Your task to perform on an android device: Open my contact list Image 0: 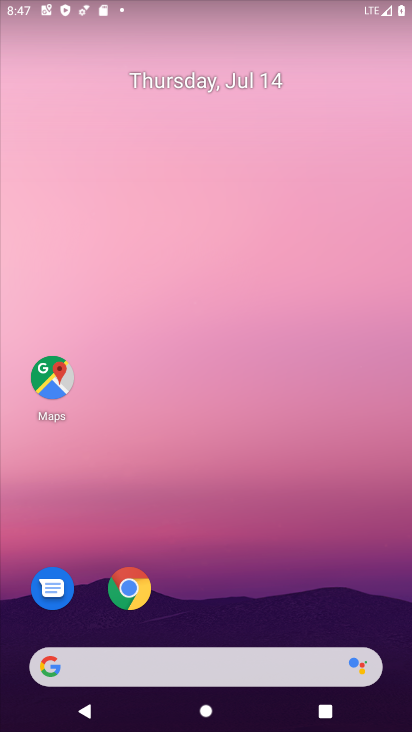
Step 0: drag from (371, 628) to (317, 9)
Your task to perform on an android device: Open my contact list Image 1: 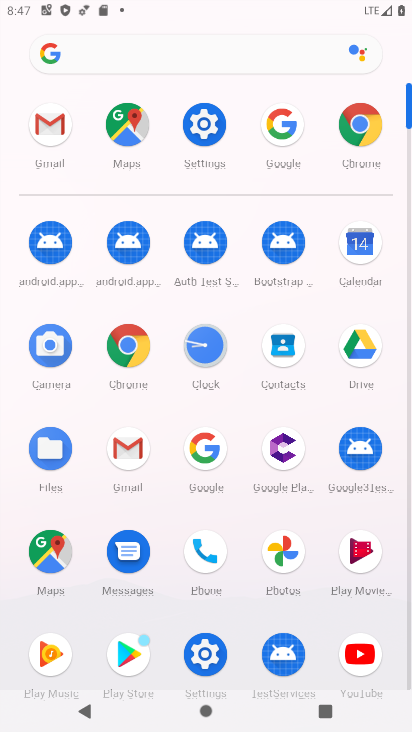
Step 1: click (274, 332)
Your task to perform on an android device: Open my contact list Image 2: 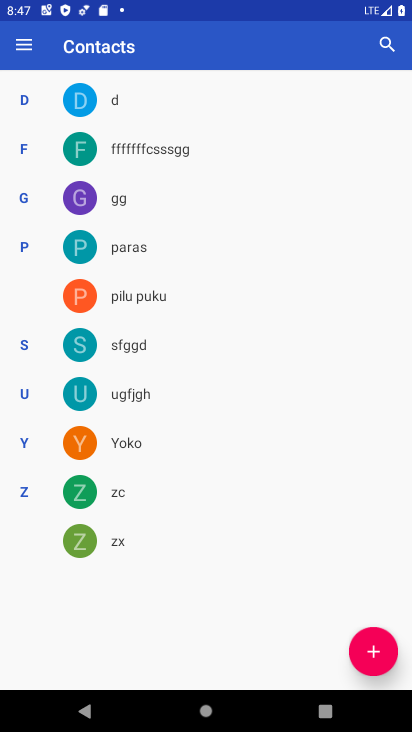
Step 2: task complete